Your task to perform on an android device: toggle pop-ups in chrome Image 0: 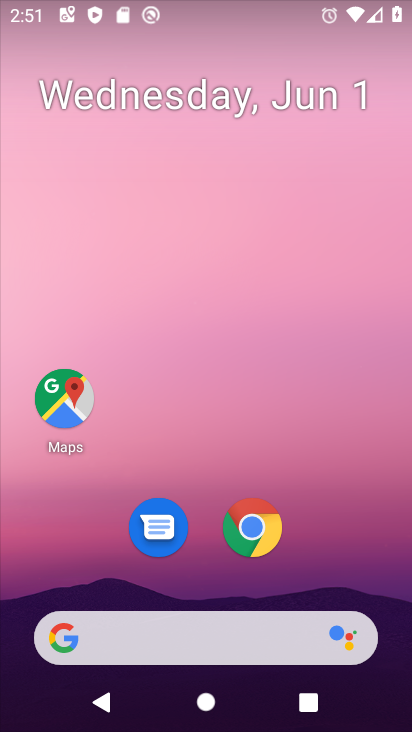
Step 0: click (253, 526)
Your task to perform on an android device: toggle pop-ups in chrome Image 1: 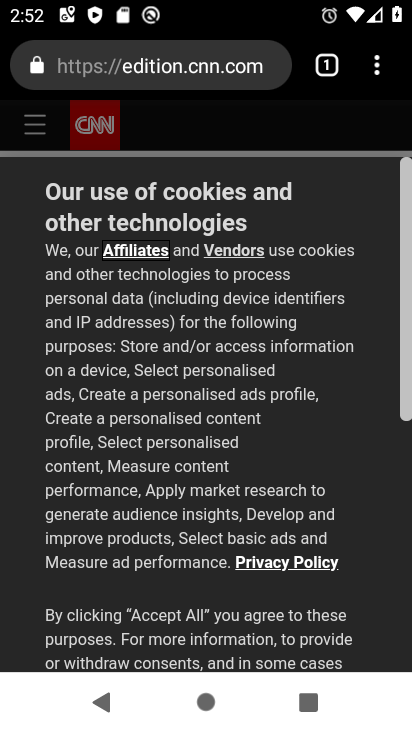
Step 1: click (380, 64)
Your task to perform on an android device: toggle pop-ups in chrome Image 2: 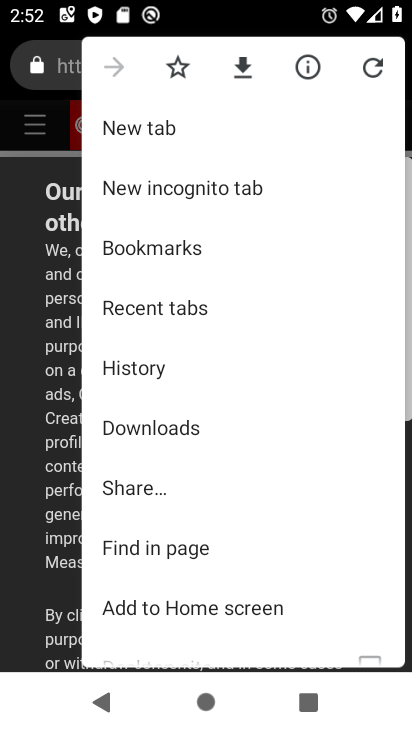
Step 2: drag from (182, 509) to (214, 409)
Your task to perform on an android device: toggle pop-ups in chrome Image 3: 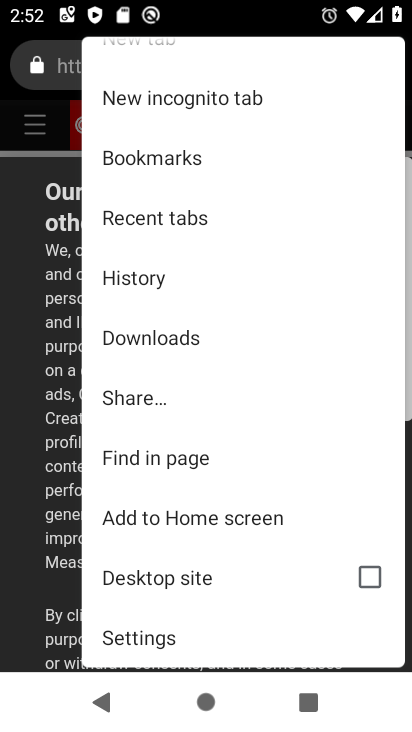
Step 3: drag from (187, 559) to (218, 461)
Your task to perform on an android device: toggle pop-ups in chrome Image 4: 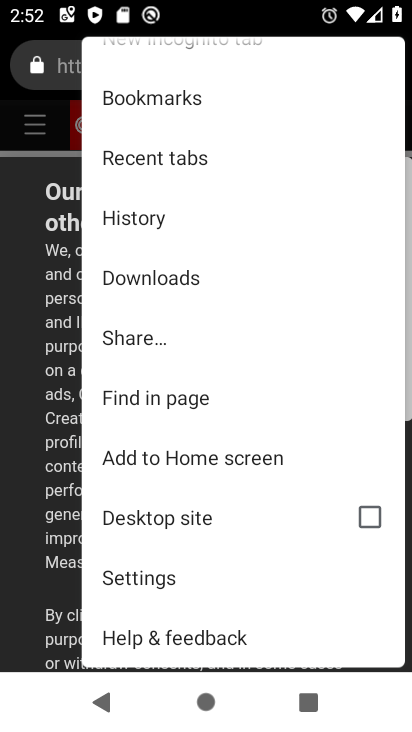
Step 4: click (149, 573)
Your task to perform on an android device: toggle pop-ups in chrome Image 5: 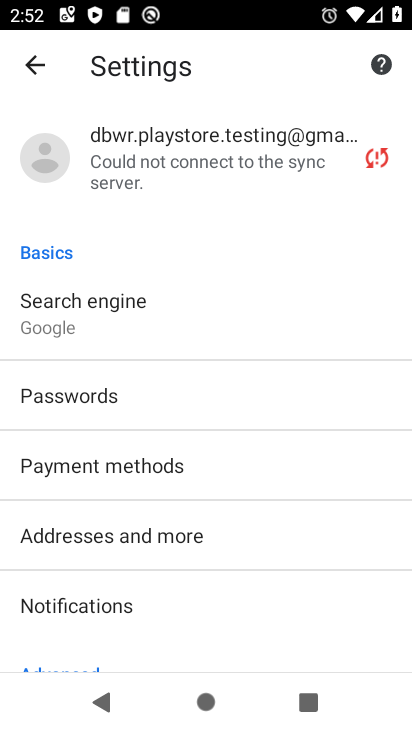
Step 5: drag from (214, 534) to (233, 414)
Your task to perform on an android device: toggle pop-ups in chrome Image 6: 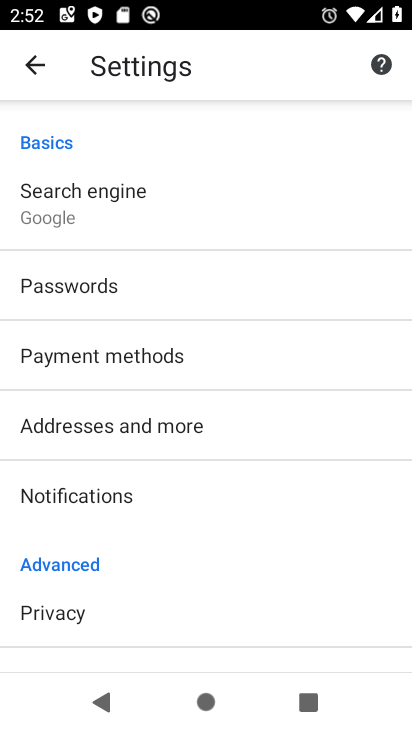
Step 6: drag from (150, 498) to (166, 430)
Your task to perform on an android device: toggle pop-ups in chrome Image 7: 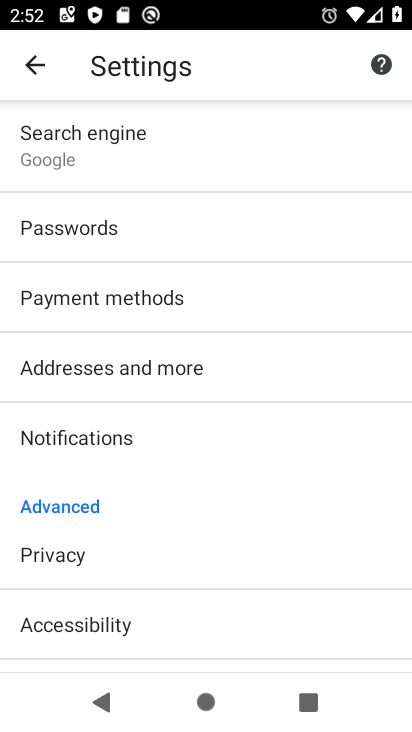
Step 7: drag from (130, 473) to (177, 400)
Your task to perform on an android device: toggle pop-ups in chrome Image 8: 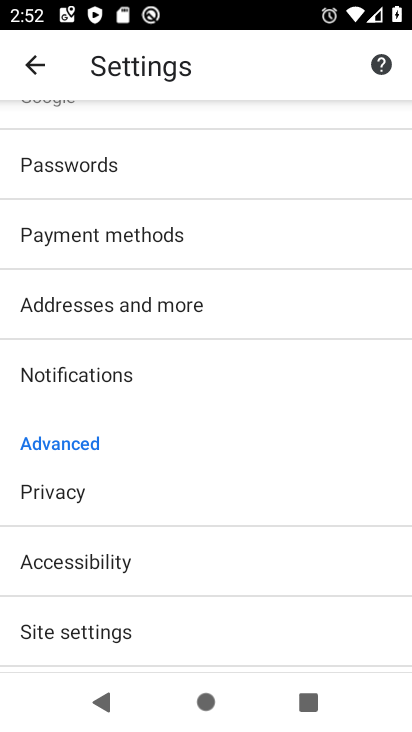
Step 8: drag from (133, 502) to (191, 406)
Your task to perform on an android device: toggle pop-ups in chrome Image 9: 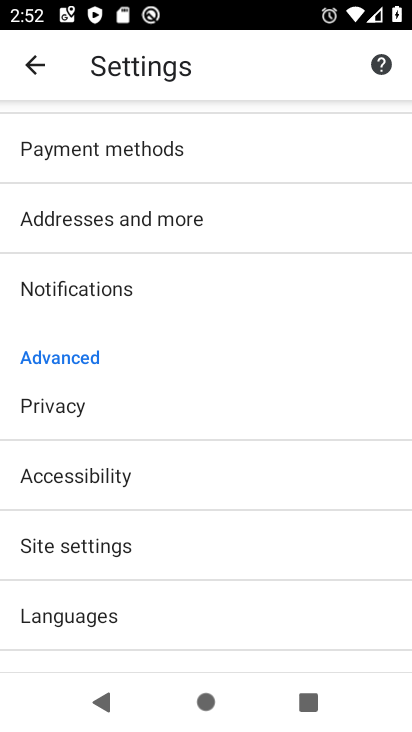
Step 9: click (122, 556)
Your task to perform on an android device: toggle pop-ups in chrome Image 10: 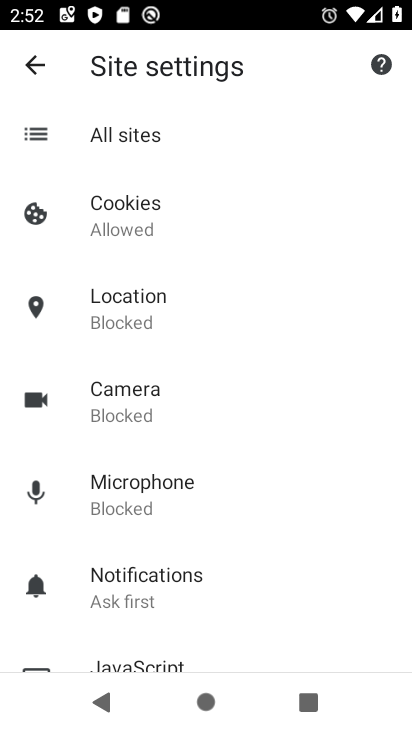
Step 10: drag from (177, 529) to (229, 445)
Your task to perform on an android device: toggle pop-ups in chrome Image 11: 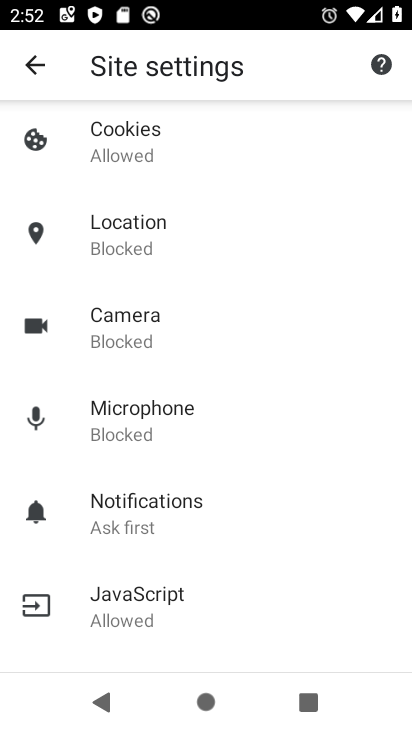
Step 11: drag from (186, 550) to (229, 402)
Your task to perform on an android device: toggle pop-ups in chrome Image 12: 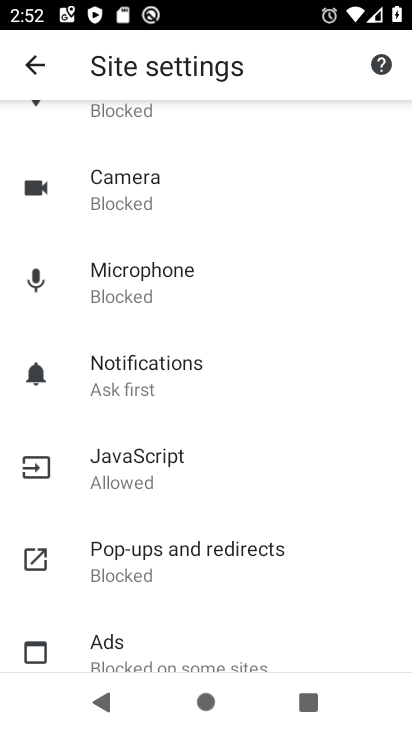
Step 12: click (173, 552)
Your task to perform on an android device: toggle pop-ups in chrome Image 13: 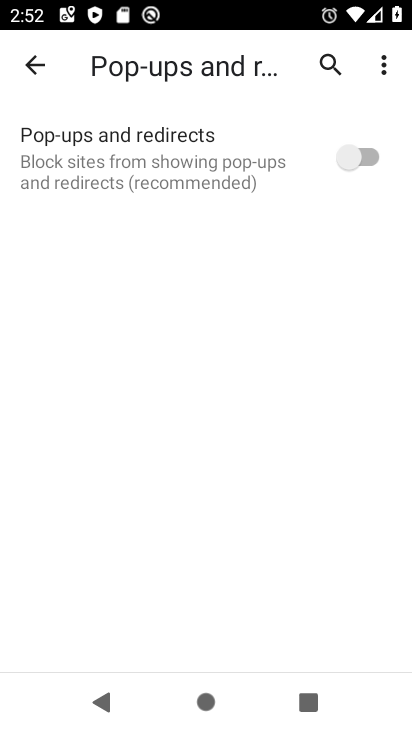
Step 13: click (347, 162)
Your task to perform on an android device: toggle pop-ups in chrome Image 14: 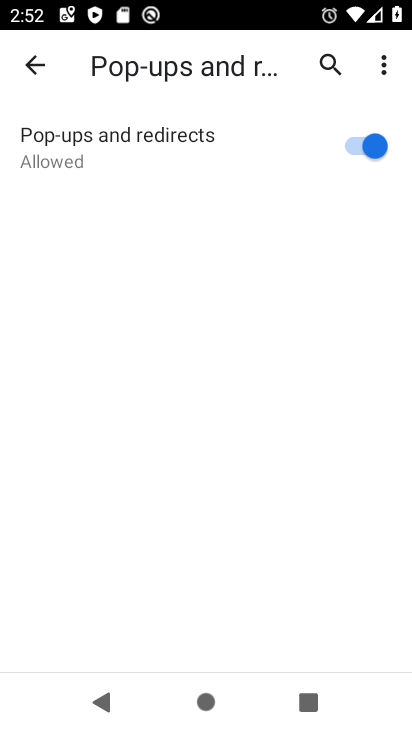
Step 14: task complete